Your task to perform on an android device: Open maps Image 0: 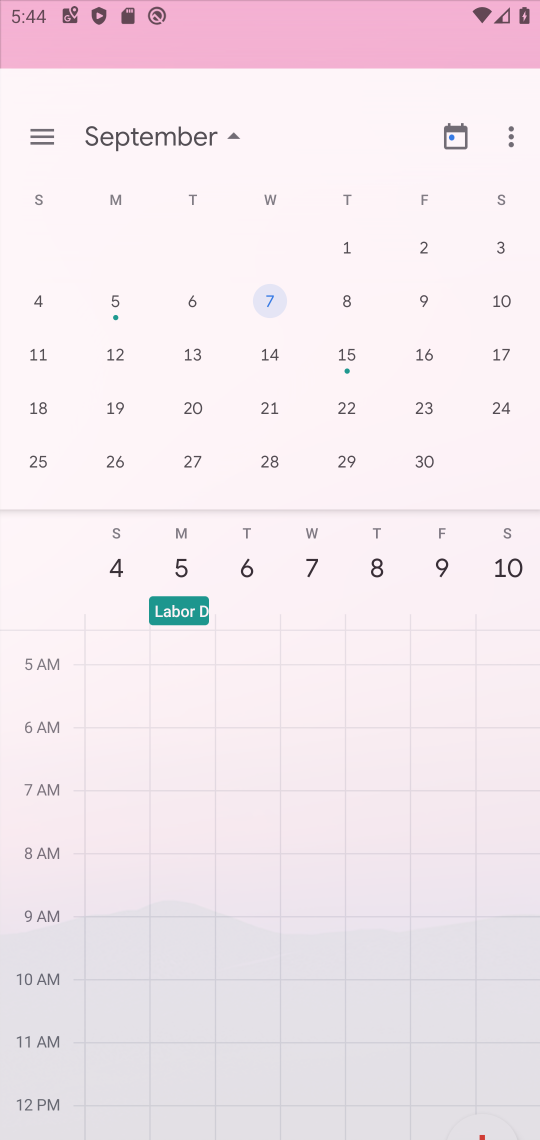
Step 0: press home button
Your task to perform on an android device: Open maps Image 1: 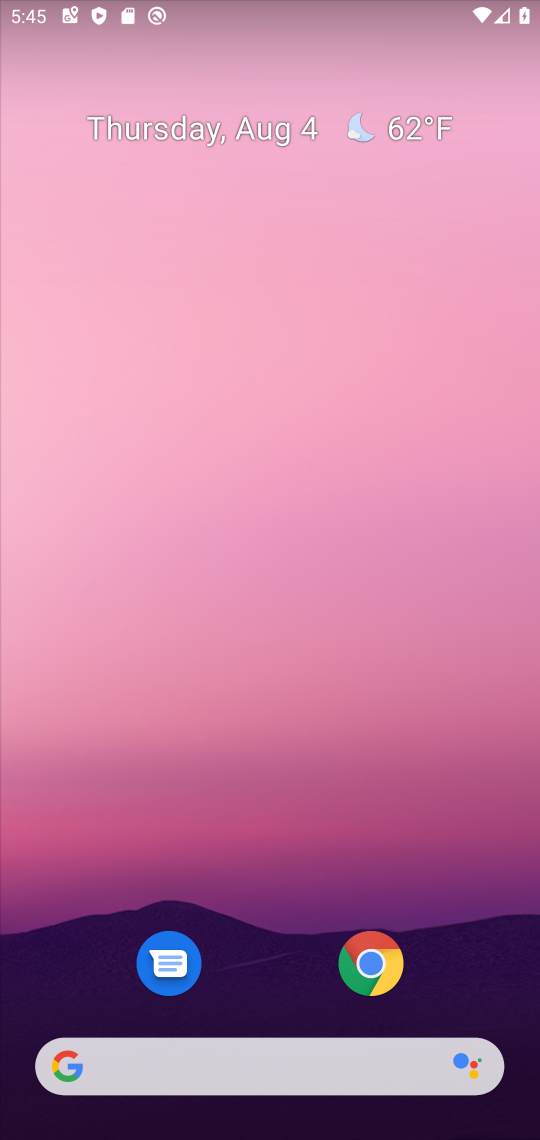
Step 1: drag from (293, 893) to (191, 98)
Your task to perform on an android device: Open maps Image 2: 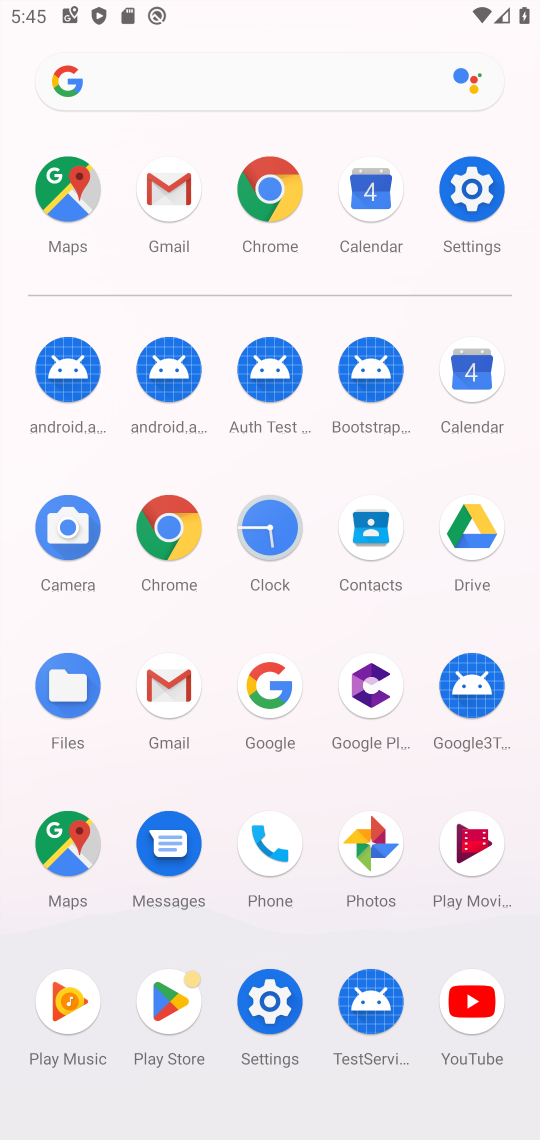
Step 2: click (62, 202)
Your task to perform on an android device: Open maps Image 3: 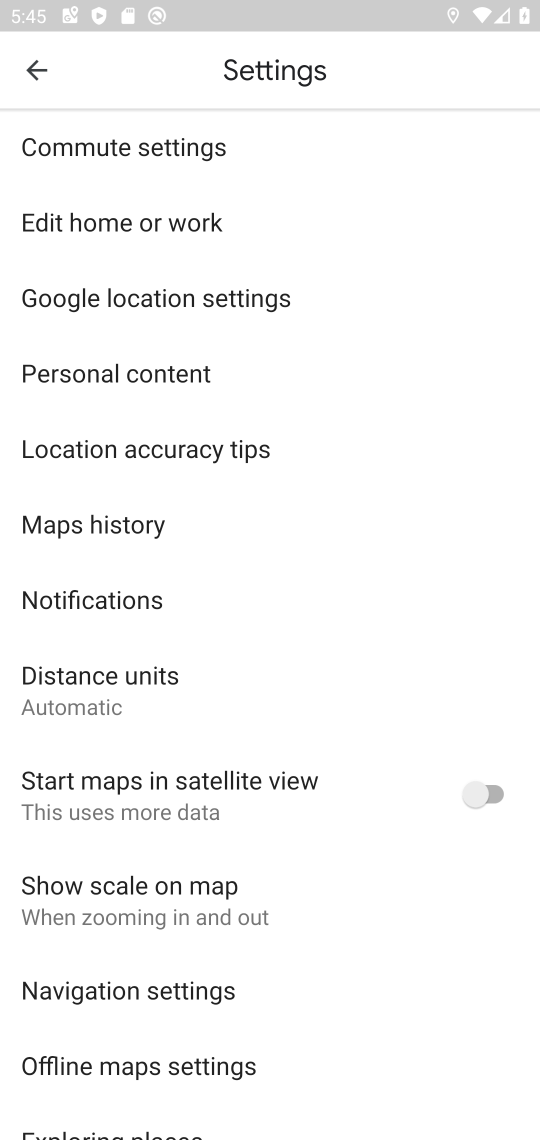
Step 3: click (35, 67)
Your task to perform on an android device: Open maps Image 4: 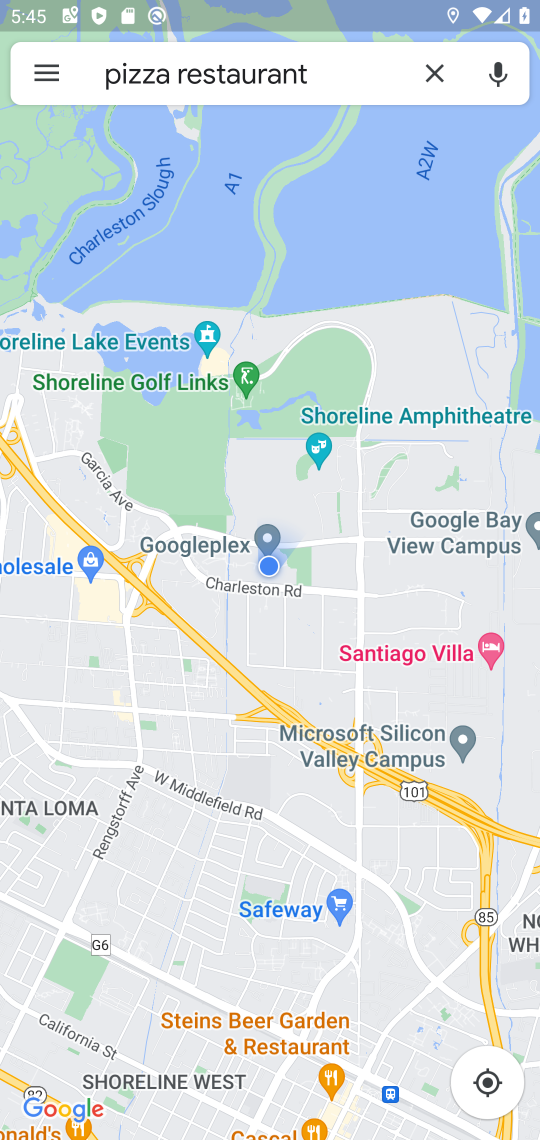
Step 4: task complete